Your task to perform on an android device: change your default location settings in chrome Image 0: 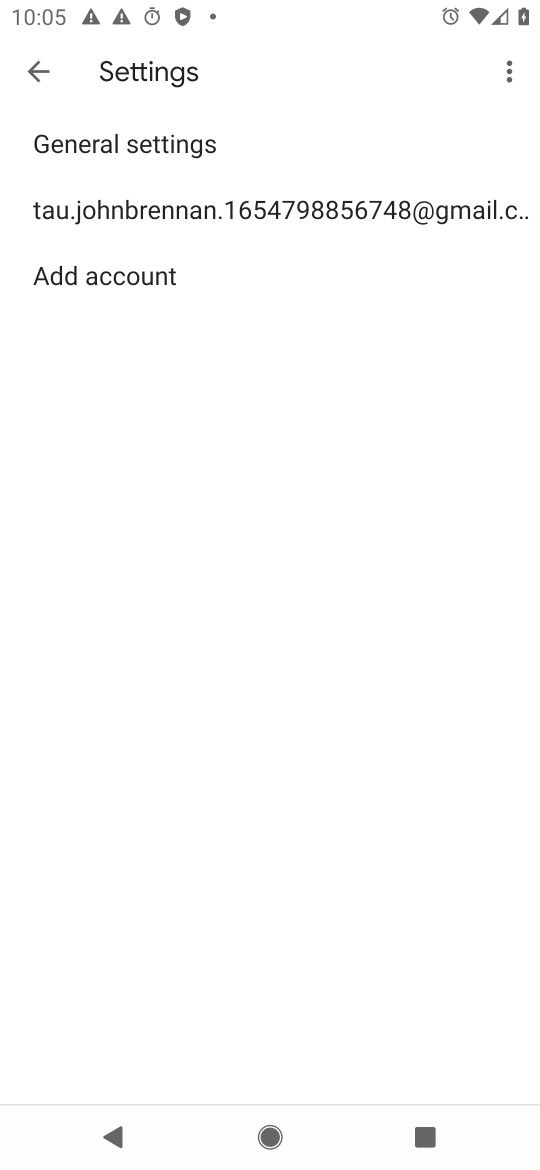
Step 0: drag from (359, 699) to (375, 493)
Your task to perform on an android device: change your default location settings in chrome Image 1: 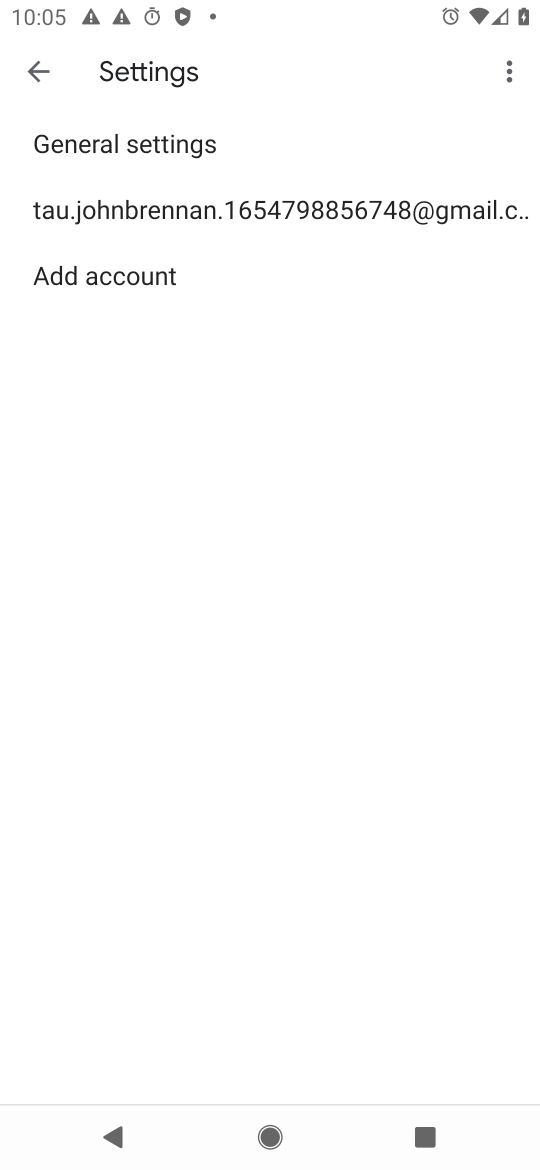
Step 1: drag from (320, 892) to (333, 548)
Your task to perform on an android device: change your default location settings in chrome Image 2: 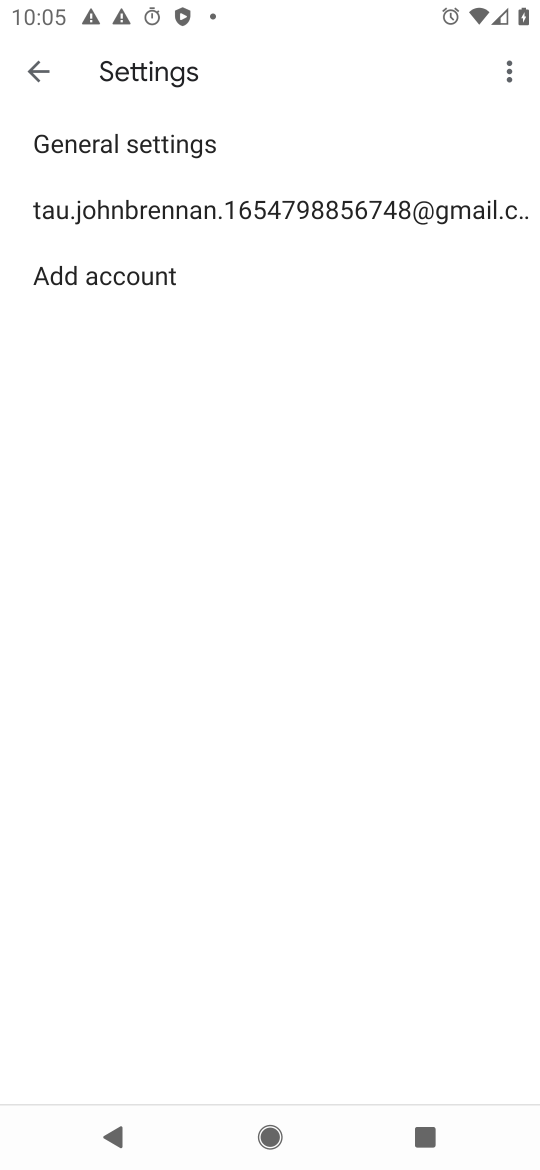
Step 2: press home button
Your task to perform on an android device: change your default location settings in chrome Image 3: 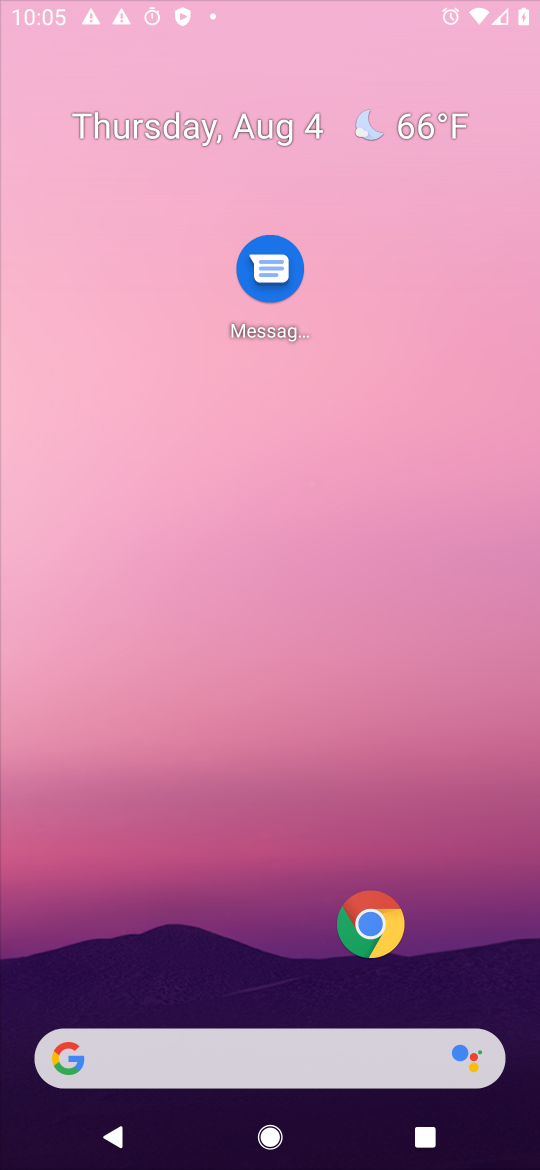
Step 3: drag from (178, 952) to (174, 75)
Your task to perform on an android device: change your default location settings in chrome Image 4: 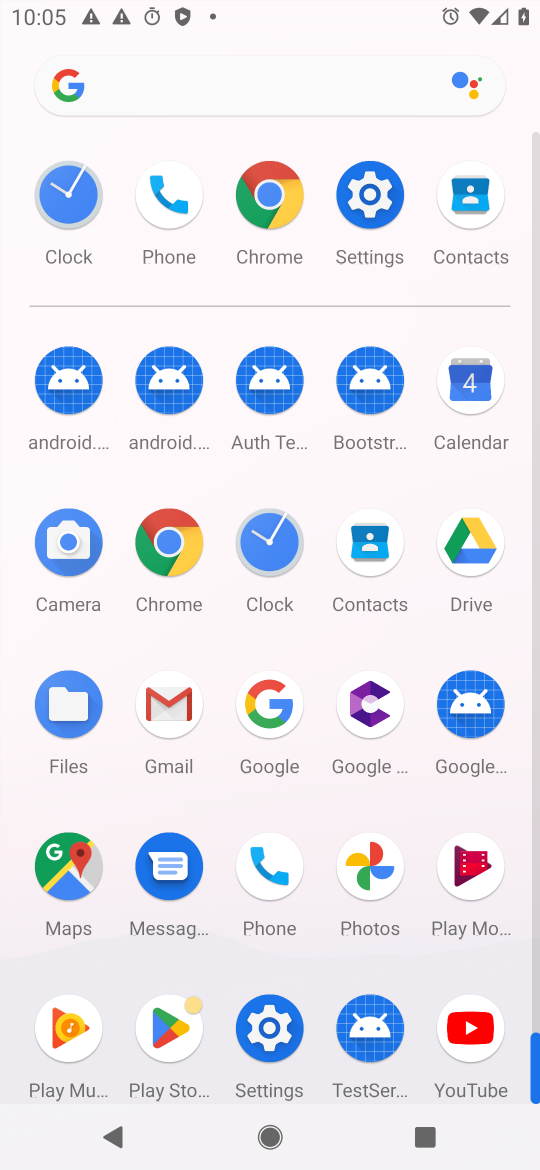
Step 4: click (165, 542)
Your task to perform on an android device: change your default location settings in chrome Image 5: 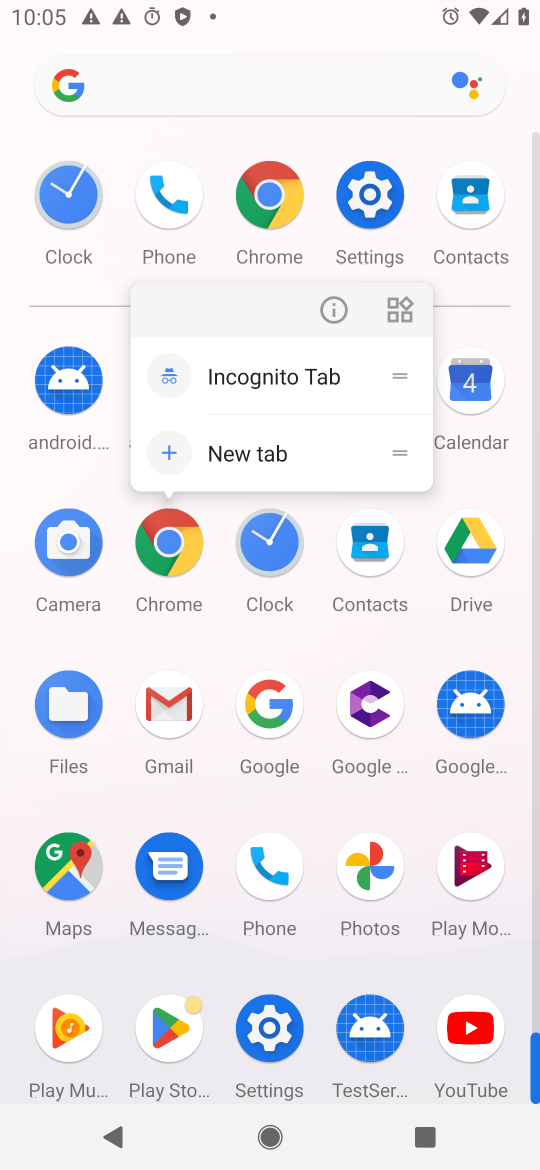
Step 5: click (314, 315)
Your task to perform on an android device: change your default location settings in chrome Image 6: 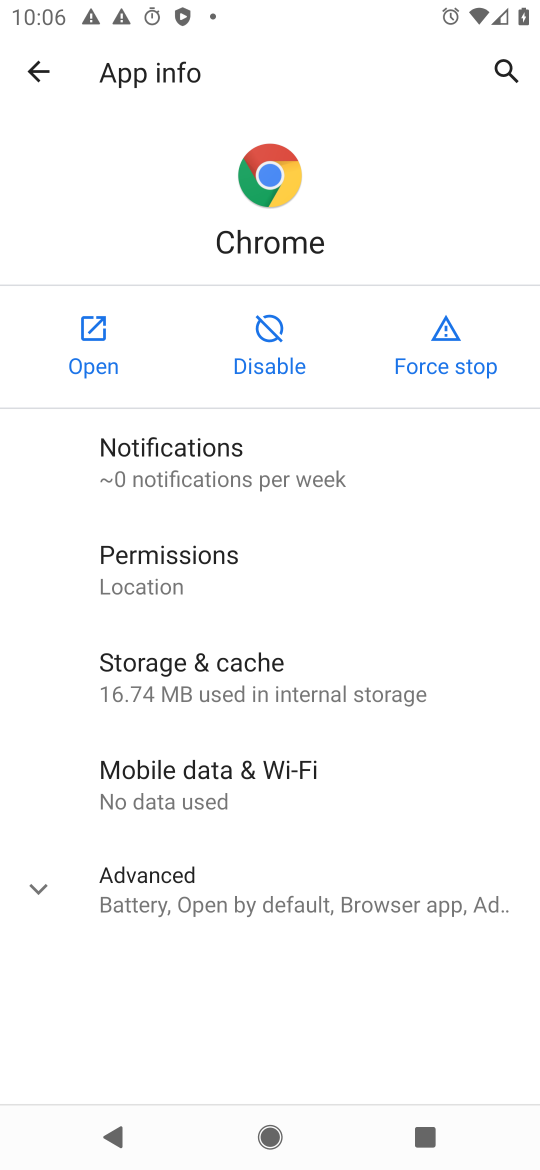
Step 6: click (82, 359)
Your task to perform on an android device: change your default location settings in chrome Image 7: 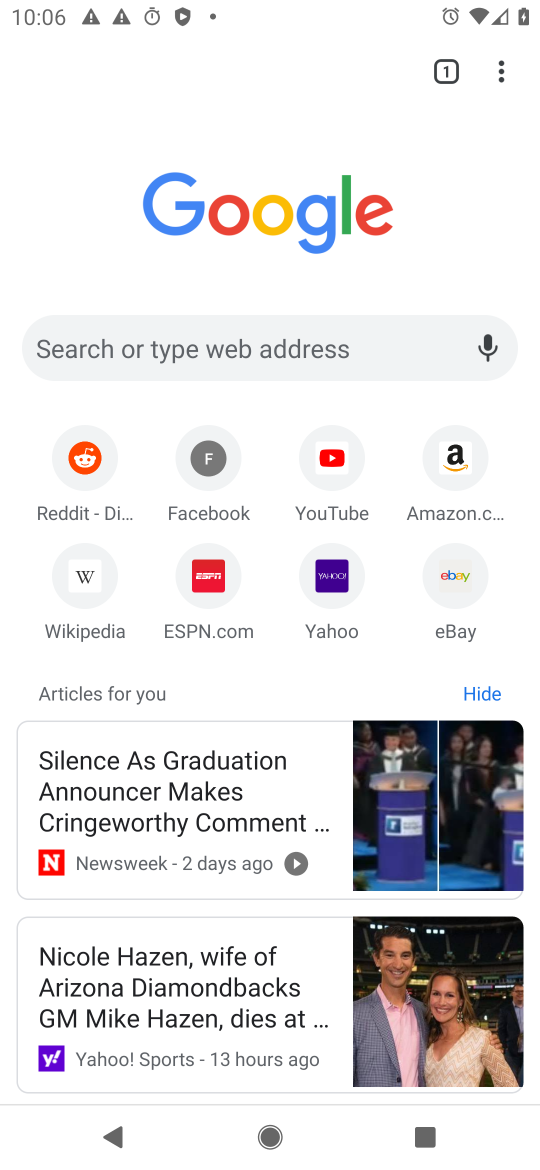
Step 7: drag from (492, 59) to (309, 605)
Your task to perform on an android device: change your default location settings in chrome Image 8: 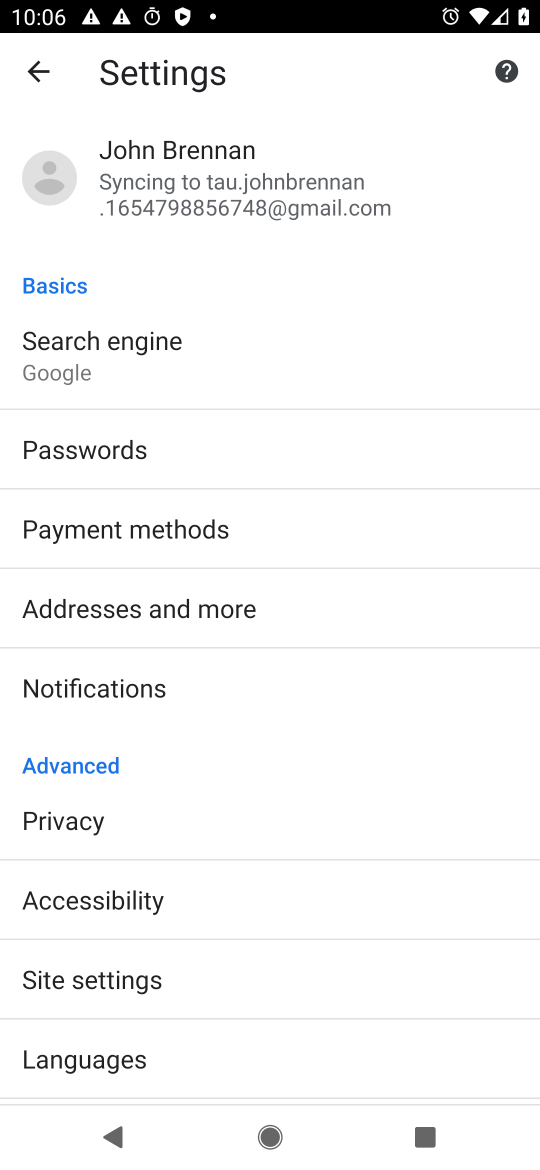
Step 8: drag from (138, 1015) to (170, 157)
Your task to perform on an android device: change your default location settings in chrome Image 9: 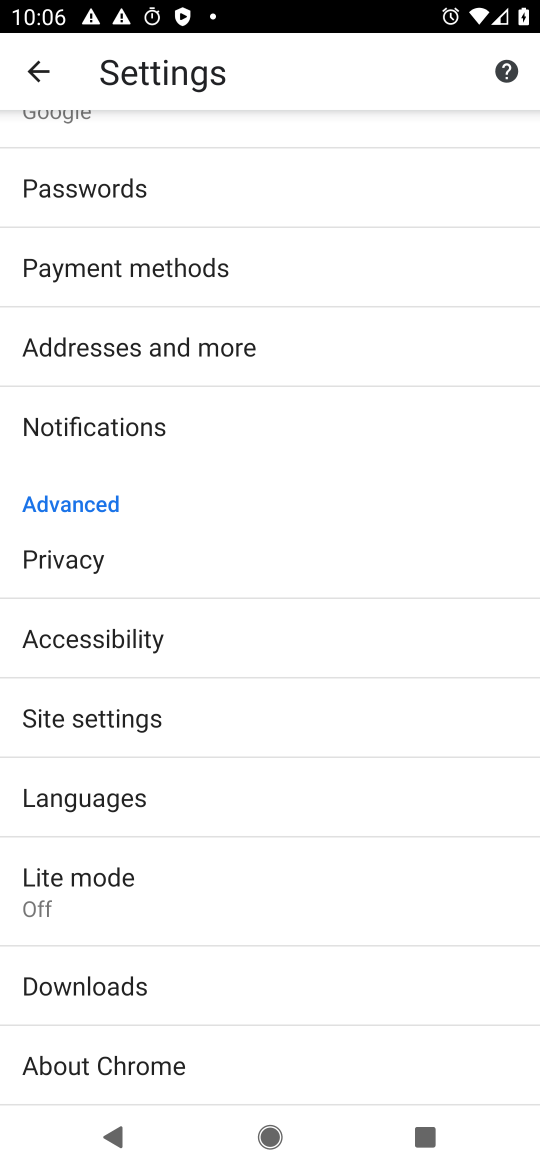
Step 9: click (117, 727)
Your task to perform on an android device: change your default location settings in chrome Image 10: 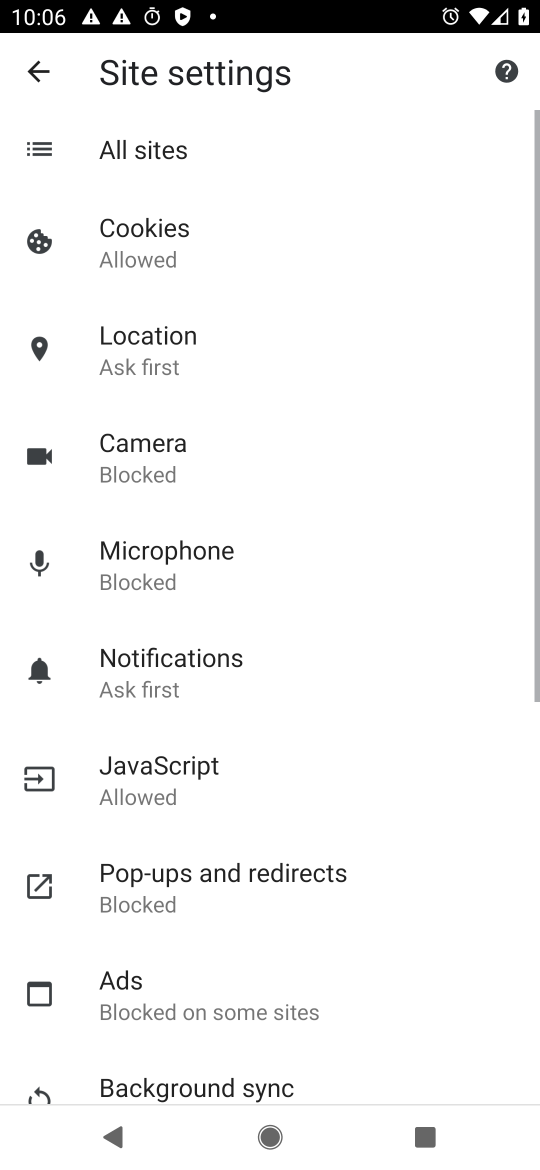
Step 10: click (174, 359)
Your task to perform on an android device: change your default location settings in chrome Image 11: 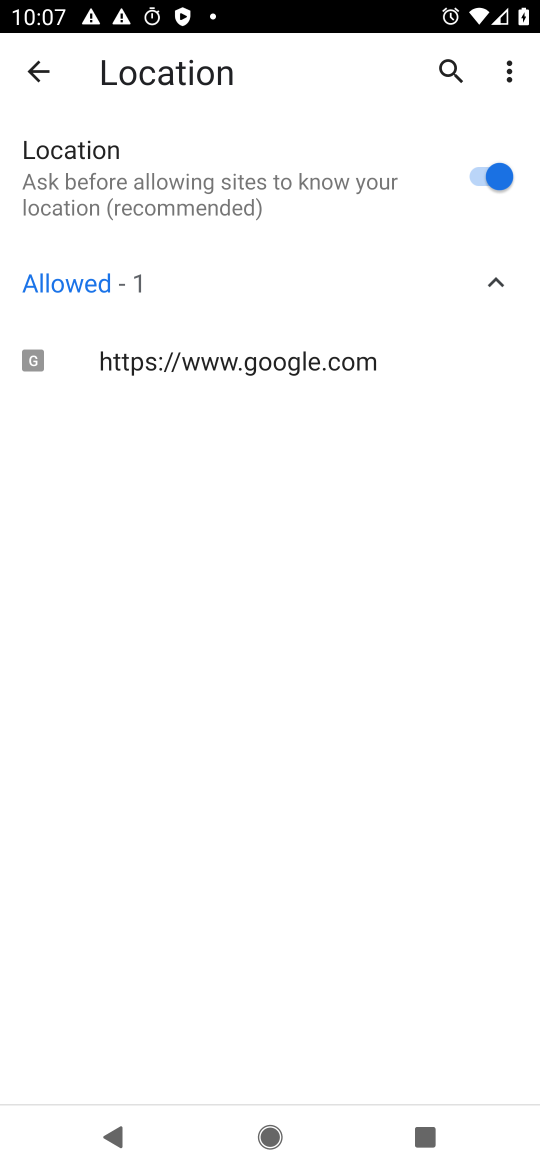
Step 11: click (484, 169)
Your task to perform on an android device: change your default location settings in chrome Image 12: 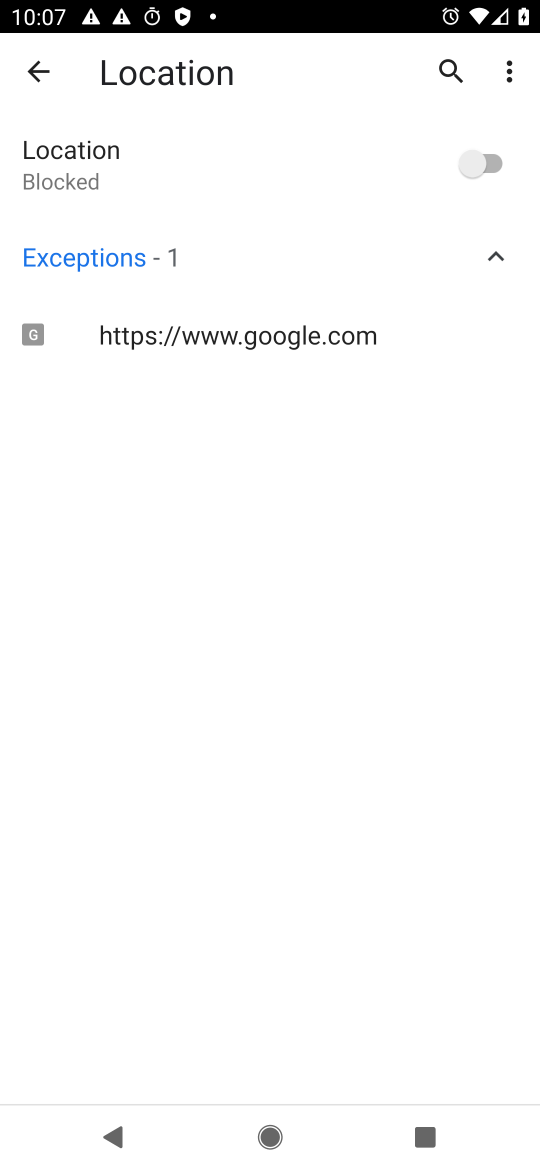
Step 12: task complete